Your task to perform on an android device: Open Chrome and go to the settings page Image 0: 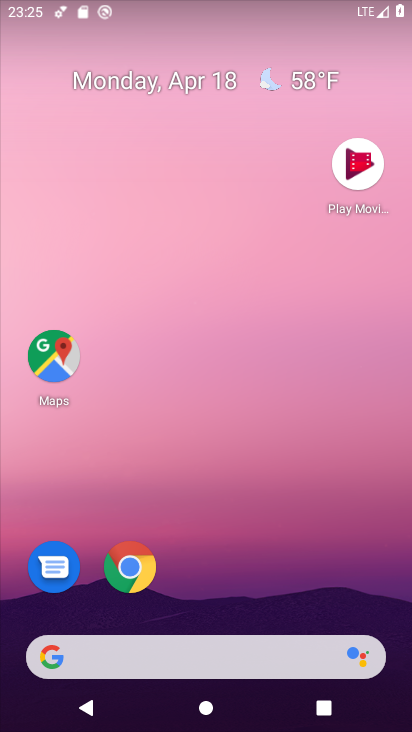
Step 0: click (204, 201)
Your task to perform on an android device: Open Chrome and go to the settings page Image 1: 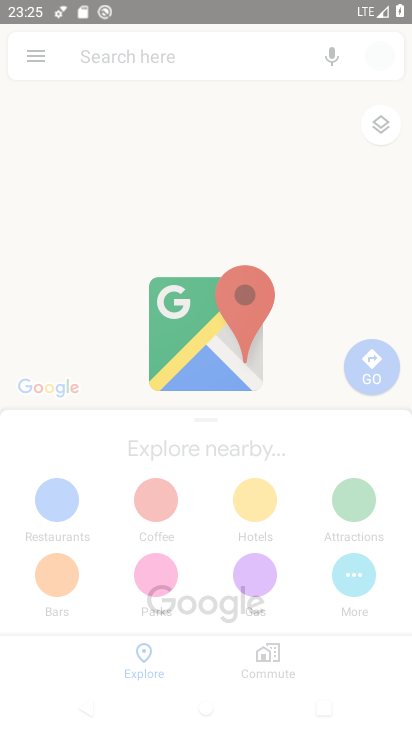
Step 1: drag from (209, 595) to (286, 139)
Your task to perform on an android device: Open Chrome and go to the settings page Image 2: 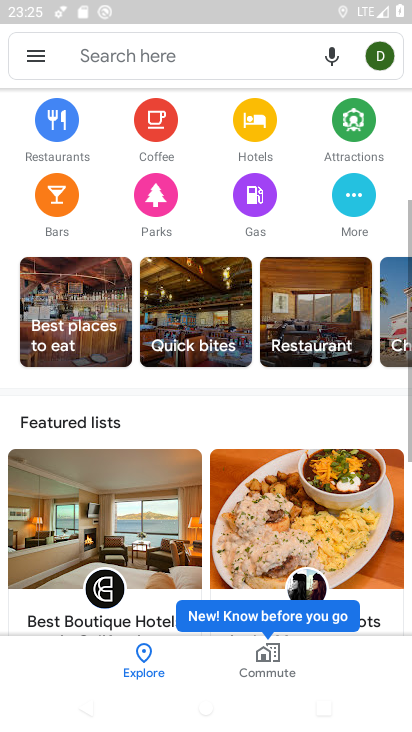
Step 2: press home button
Your task to perform on an android device: Open Chrome and go to the settings page Image 3: 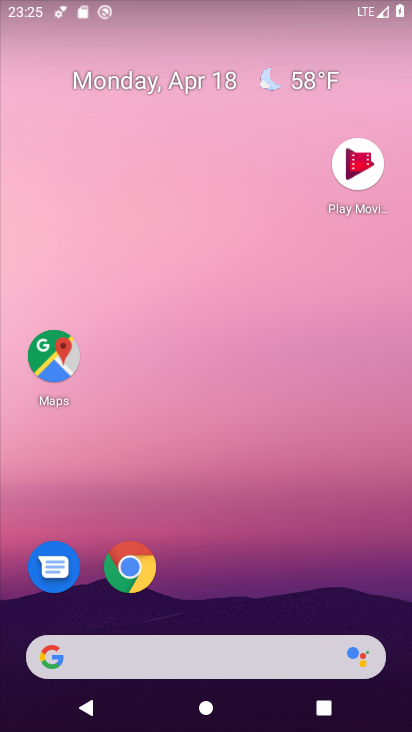
Step 3: drag from (199, 597) to (264, 135)
Your task to perform on an android device: Open Chrome and go to the settings page Image 4: 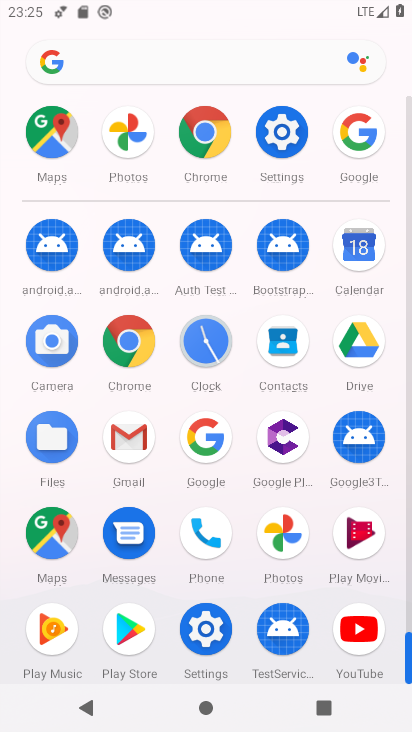
Step 4: click (121, 333)
Your task to perform on an android device: Open Chrome and go to the settings page Image 5: 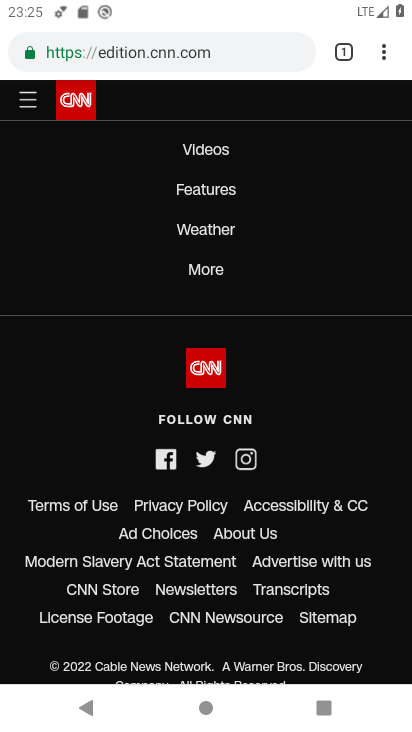
Step 5: task complete